Your task to perform on an android device: turn on bluetooth scan Image 0: 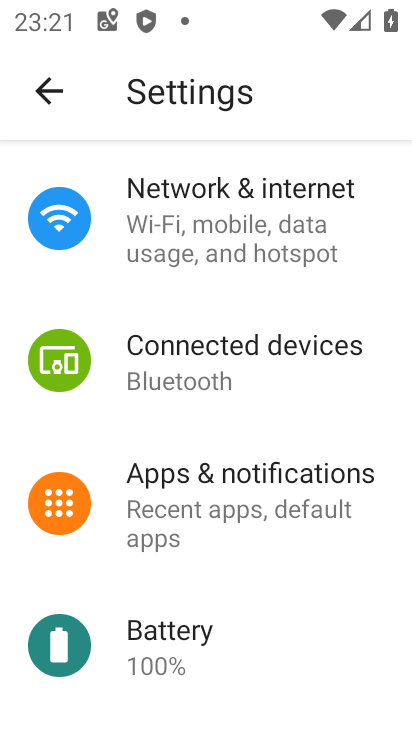
Step 0: drag from (241, 569) to (243, 141)
Your task to perform on an android device: turn on bluetooth scan Image 1: 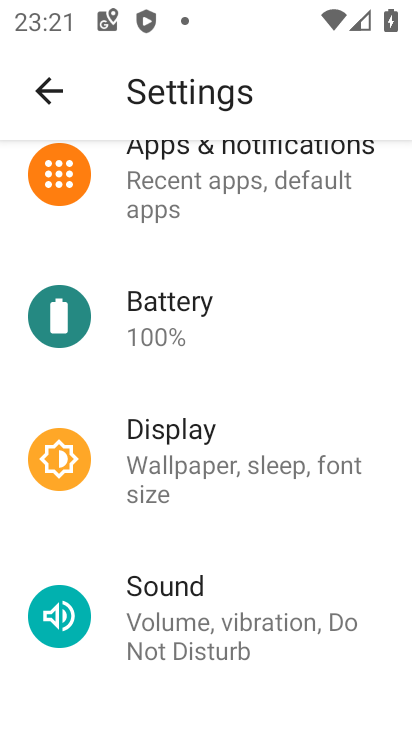
Step 1: drag from (227, 621) to (207, 1)
Your task to perform on an android device: turn on bluetooth scan Image 2: 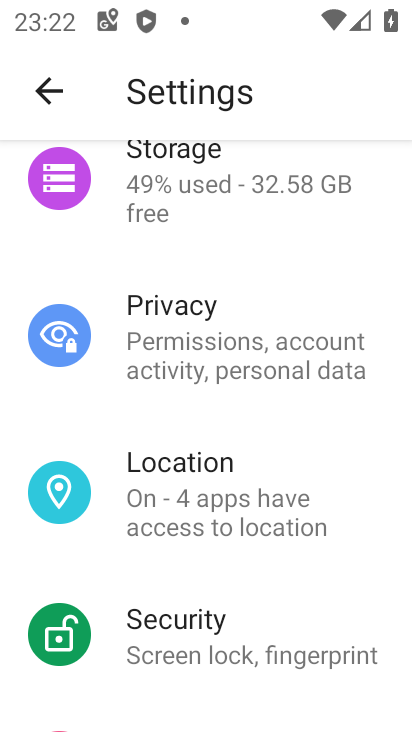
Step 2: click (202, 521)
Your task to perform on an android device: turn on bluetooth scan Image 3: 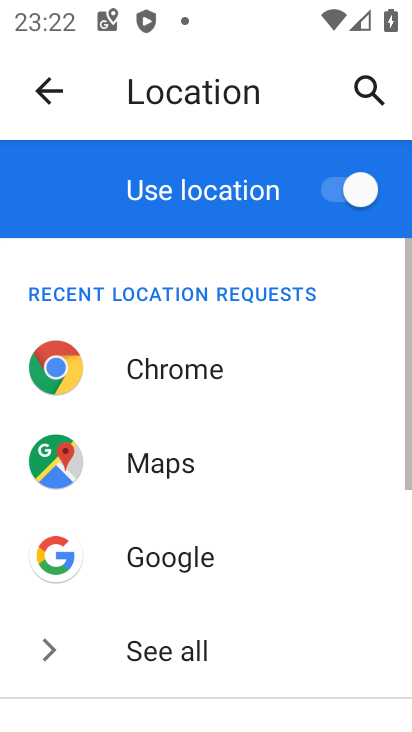
Step 3: drag from (239, 627) to (232, 57)
Your task to perform on an android device: turn on bluetooth scan Image 4: 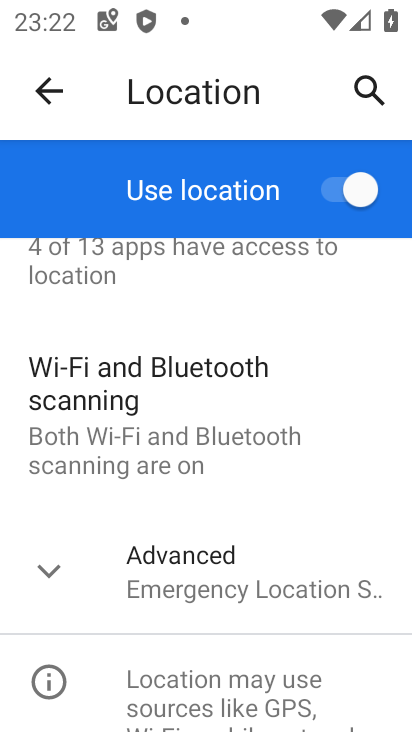
Step 4: click (226, 442)
Your task to perform on an android device: turn on bluetooth scan Image 5: 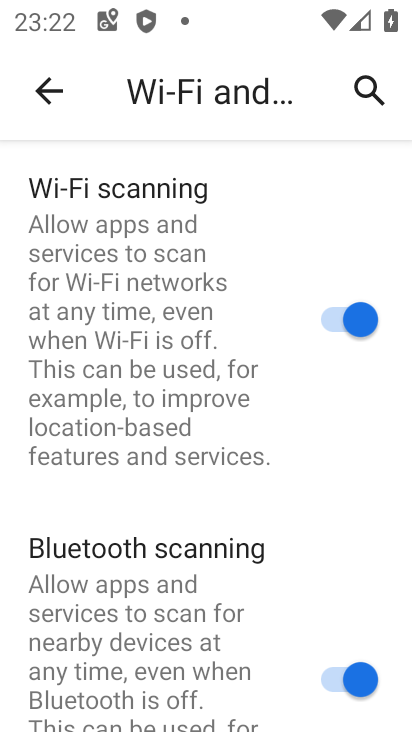
Step 5: task complete